Your task to perform on an android device: Open network settings Image 0: 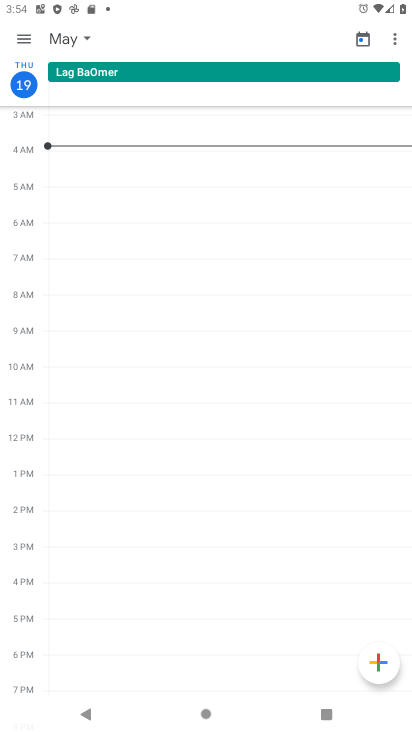
Step 0: press home button
Your task to perform on an android device: Open network settings Image 1: 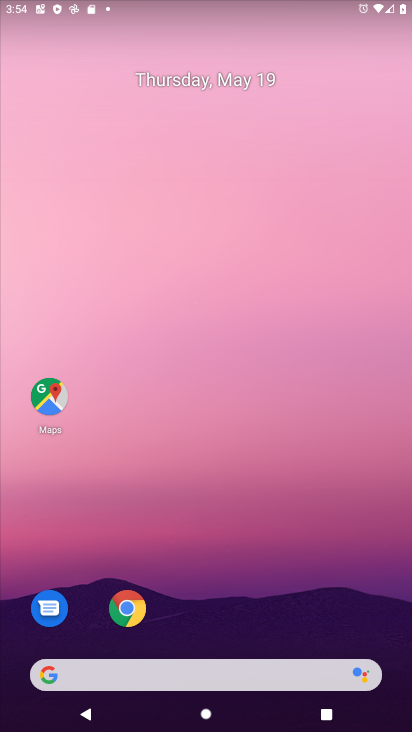
Step 1: drag from (286, 593) to (268, 97)
Your task to perform on an android device: Open network settings Image 2: 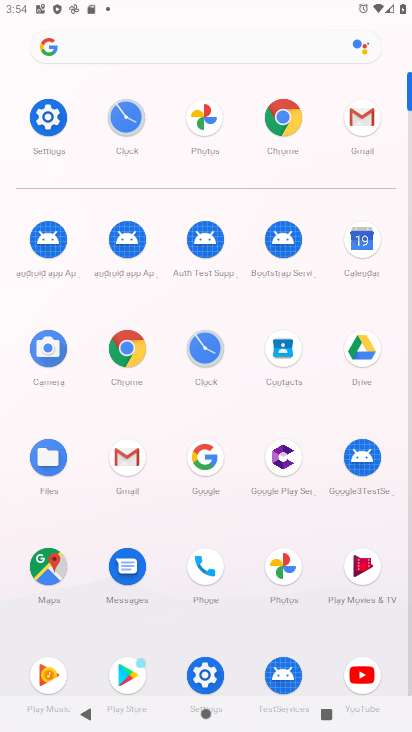
Step 2: click (60, 137)
Your task to perform on an android device: Open network settings Image 3: 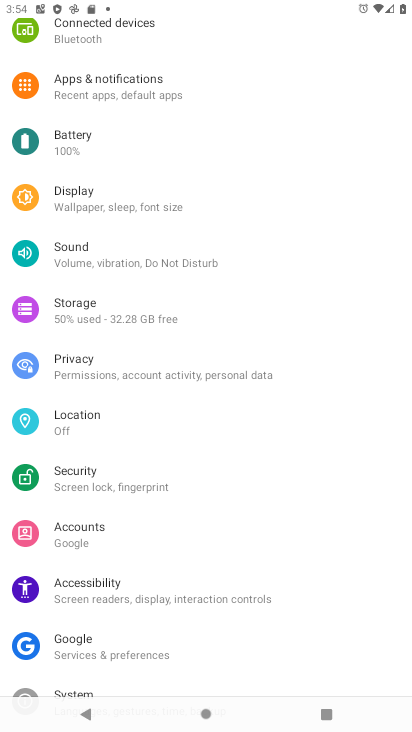
Step 3: drag from (223, 233) to (238, 486)
Your task to perform on an android device: Open network settings Image 4: 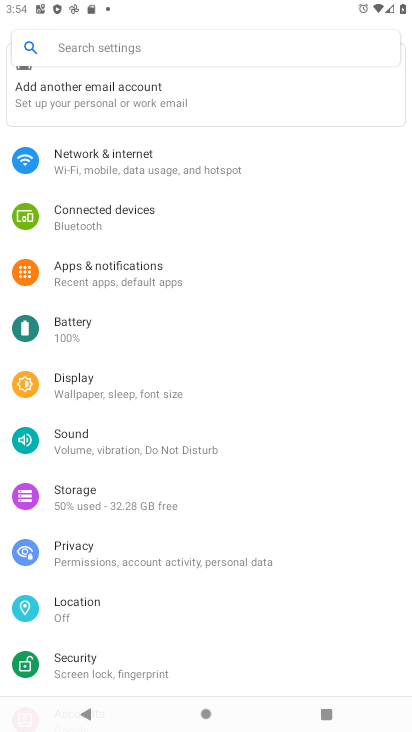
Step 4: click (223, 172)
Your task to perform on an android device: Open network settings Image 5: 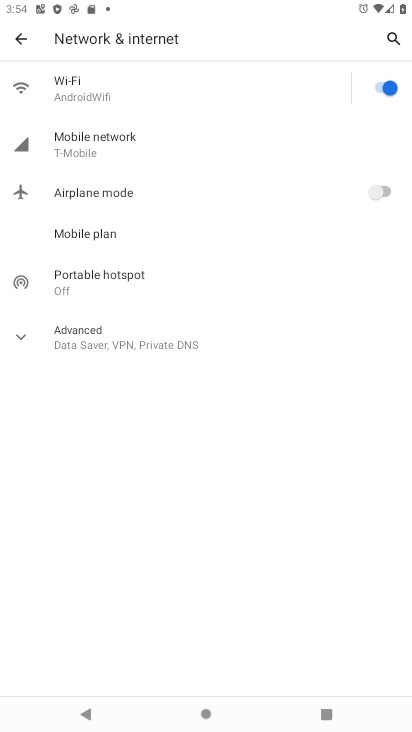
Step 5: task complete